Your task to perform on an android device: Go to internet settings Image 0: 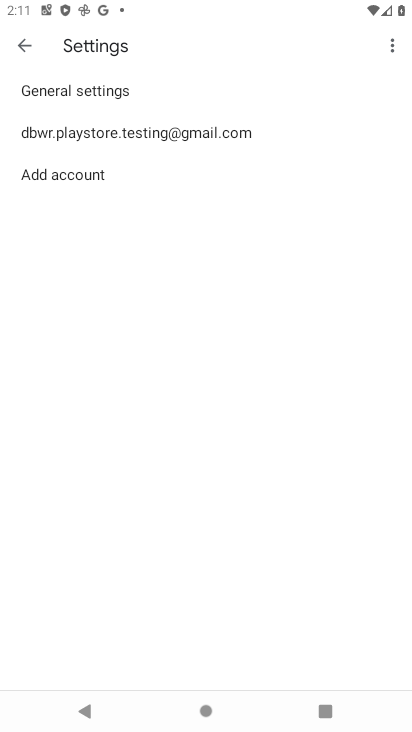
Step 0: press home button
Your task to perform on an android device: Go to internet settings Image 1: 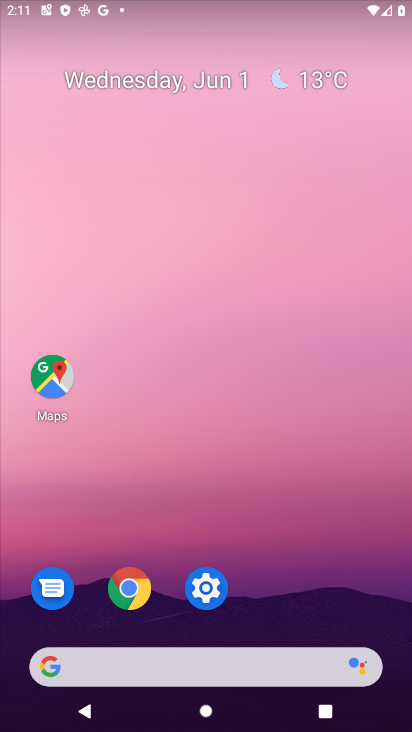
Step 1: click (208, 584)
Your task to perform on an android device: Go to internet settings Image 2: 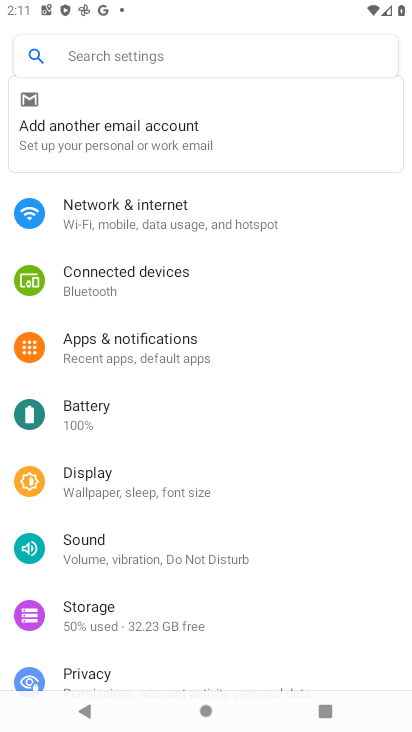
Step 2: click (178, 216)
Your task to perform on an android device: Go to internet settings Image 3: 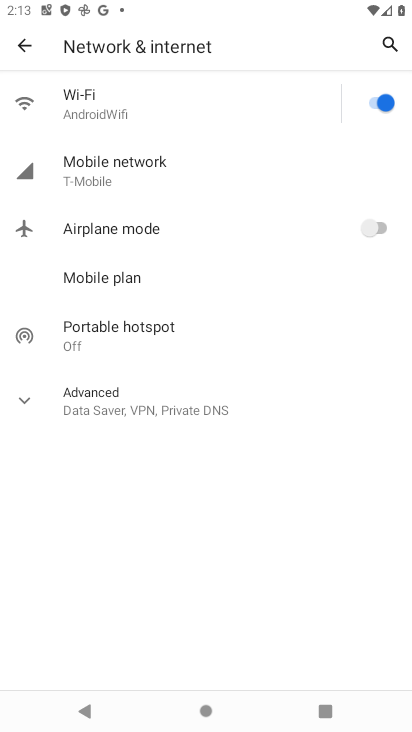
Step 3: task complete